Your task to perform on an android device: Show me popular videos on Youtube Image 0: 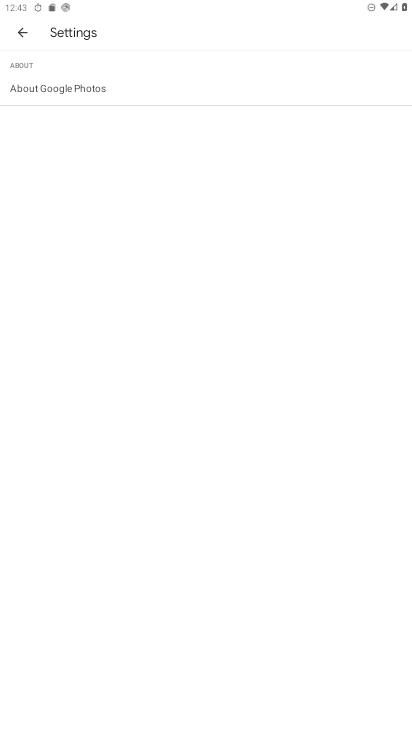
Step 0: press home button
Your task to perform on an android device: Show me popular videos on Youtube Image 1: 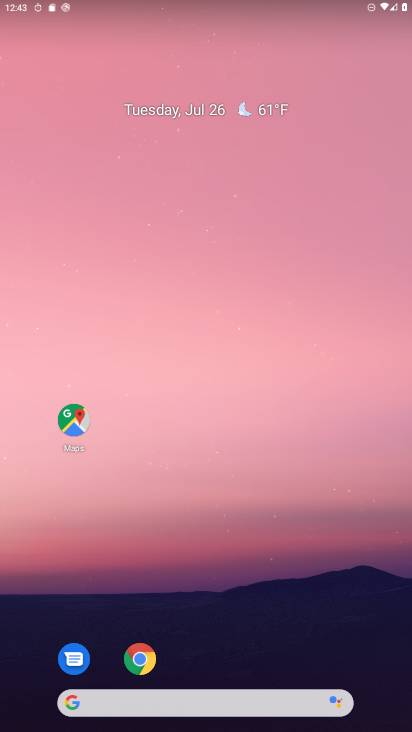
Step 1: drag from (43, 685) to (173, 156)
Your task to perform on an android device: Show me popular videos on Youtube Image 2: 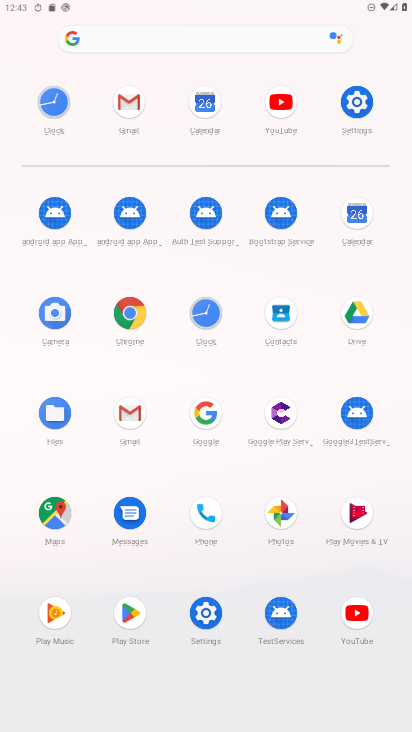
Step 2: click (349, 617)
Your task to perform on an android device: Show me popular videos on Youtube Image 3: 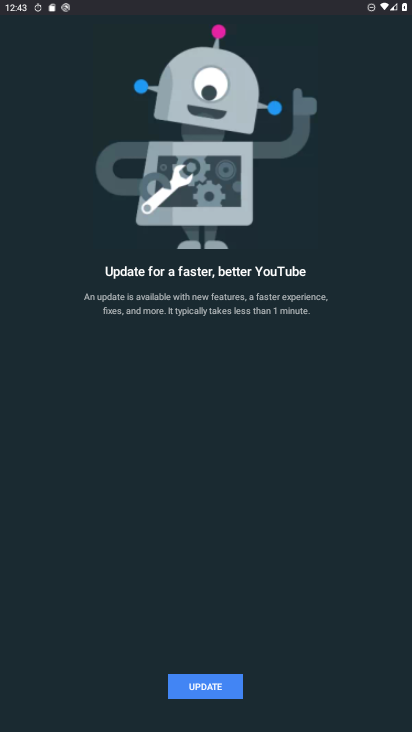
Step 3: task complete